Your task to perform on an android device: turn on improve location accuracy Image 0: 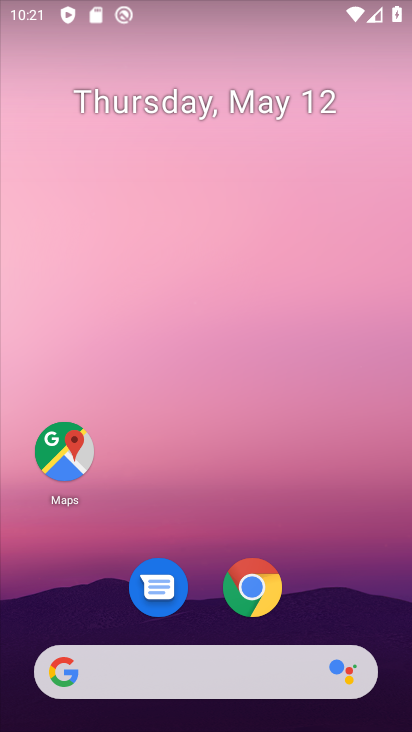
Step 0: drag from (351, 580) to (256, 105)
Your task to perform on an android device: turn on improve location accuracy Image 1: 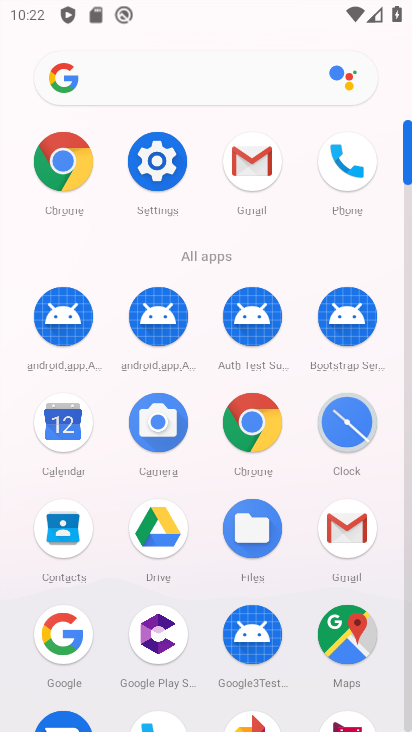
Step 1: click (173, 168)
Your task to perform on an android device: turn on improve location accuracy Image 2: 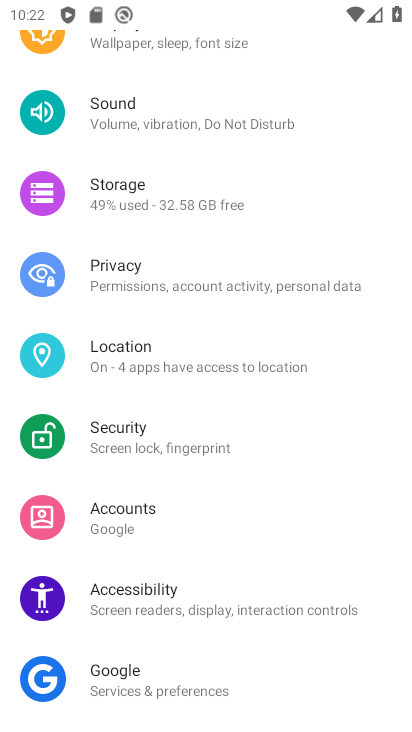
Step 2: click (171, 366)
Your task to perform on an android device: turn on improve location accuracy Image 3: 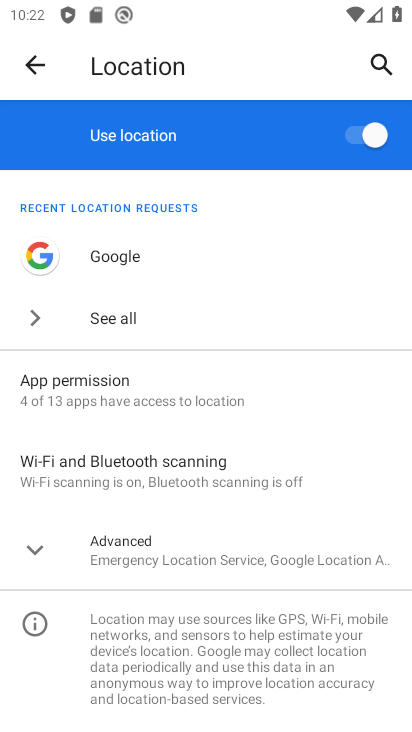
Step 3: task complete